Your task to perform on an android device: toggle sleep mode Image 0: 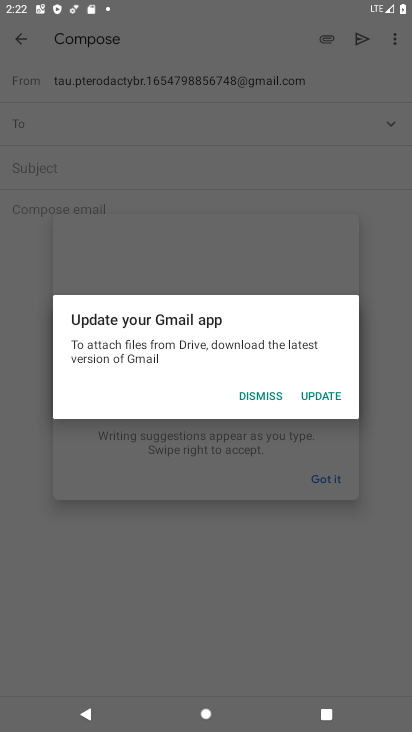
Step 0: press home button
Your task to perform on an android device: toggle sleep mode Image 1: 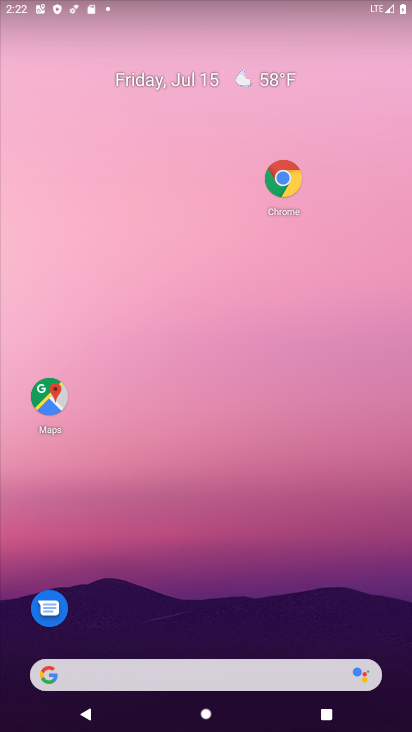
Step 1: drag from (297, 583) to (254, 48)
Your task to perform on an android device: toggle sleep mode Image 2: 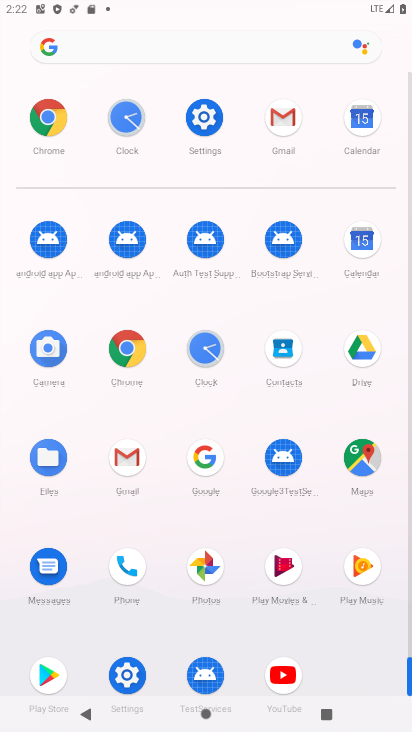
Step 2: click (197, 119)
Your task to perform on an android device: toggle sleep mode Image 3: 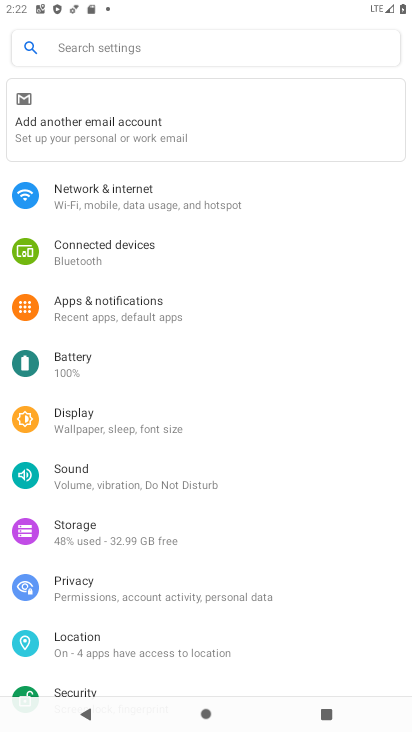
Step 3: click (62, 405)
Your task to perform on an android device: toggle sleep mode Image 4: 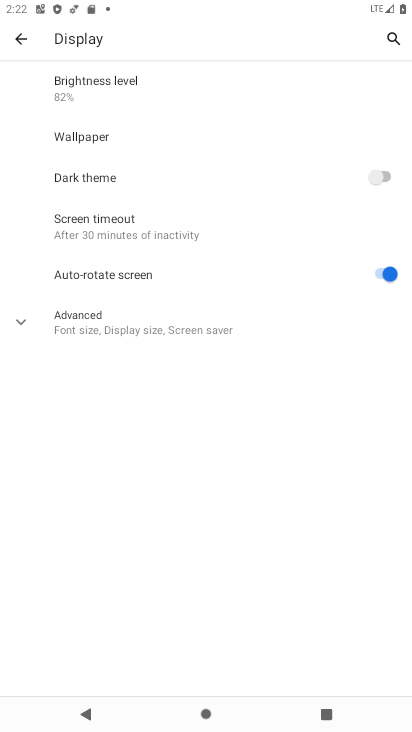
Step 4: click (106, 211)
Your task to perform on an android device: toggle sleep mode Image 5: 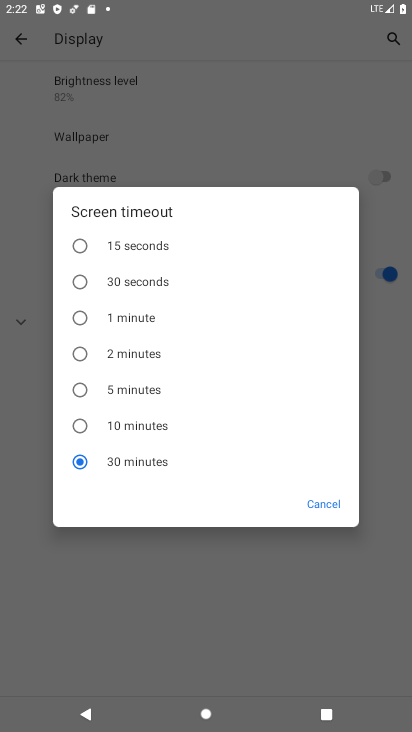
Step 5: click (137, 412)
Your task to perform on an android device: toggle sleep mode Image 6: 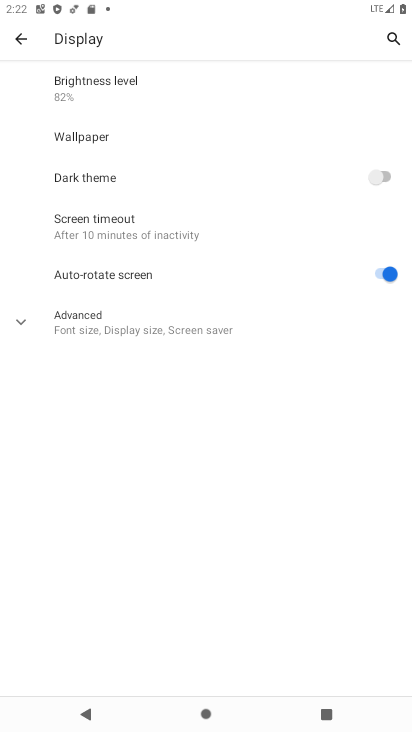
Step 6: task complete